Your task to perform on an android device: see tabs open on other devices in the chrome app Image 0: 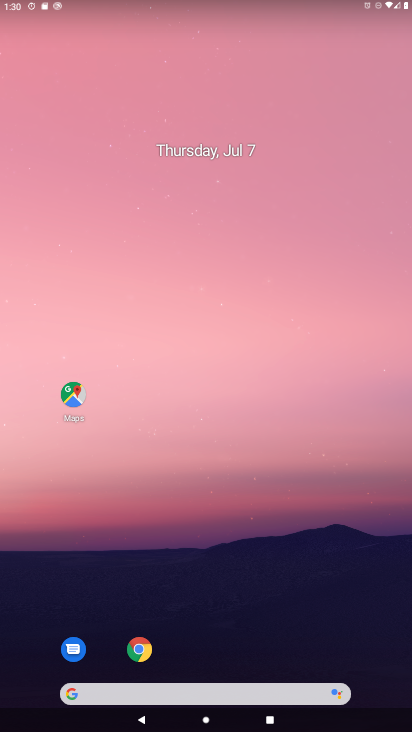
Step 0: click (136, 652)
Your task to perform on an android device: see tabs open on other devices in the chrome app Image 1: 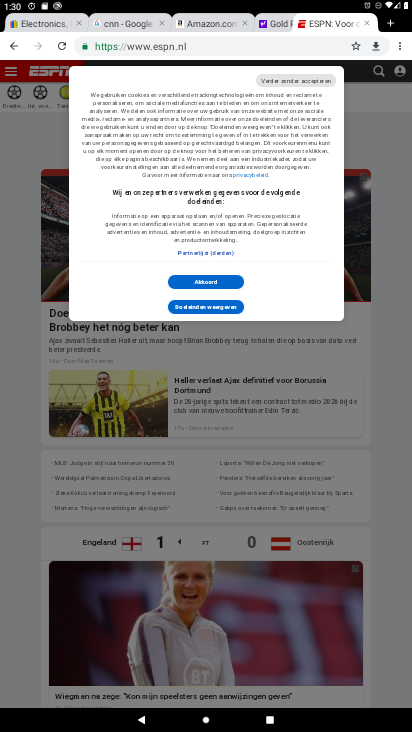
Step 1: click (263, 22)
Your task to perform on an android device: see tabs open on other devices in the chrome app Image 2: 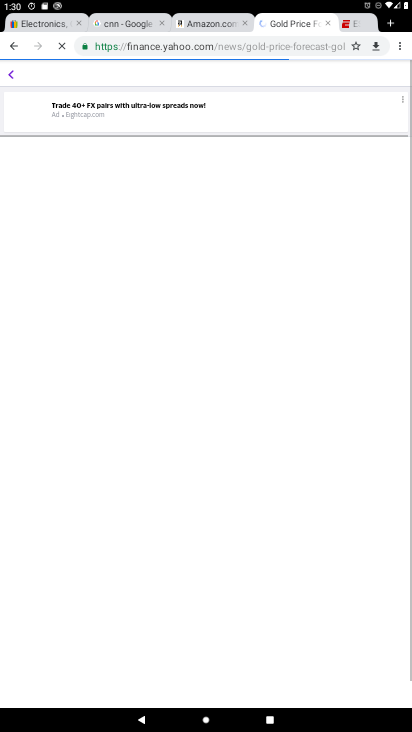
Step 2: click (220, 16)
Your task to perform on an android device: see tabs open on other devices in the chrome app Image 3: 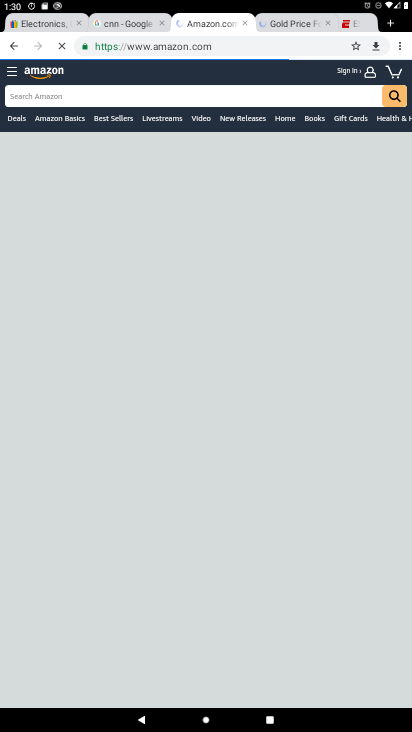
Step 3: click (139, 18)
Your task to perform on an android device: see tabs open on other devices in the chrome app Image 4: 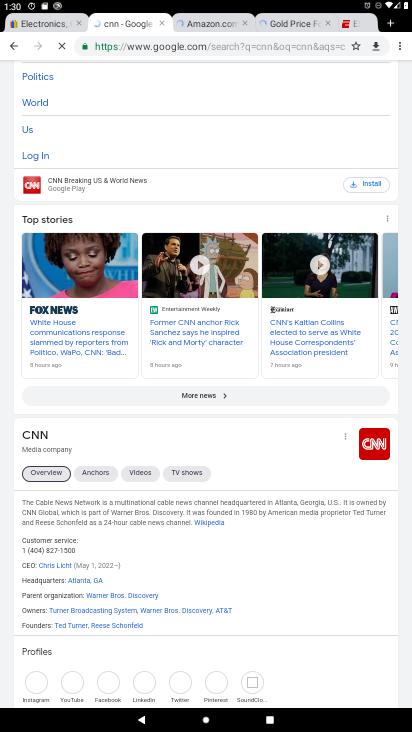
Step 4: click (37, 13)
Your task to perform on an android device: see tabs open on other devices in the chrome app Image 5: 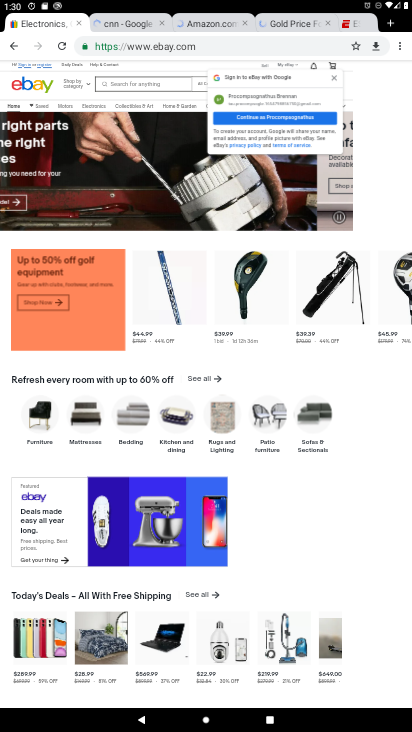
Step 5: task complete